Your task to perform on an android device: empty trash in google photos Image 0: 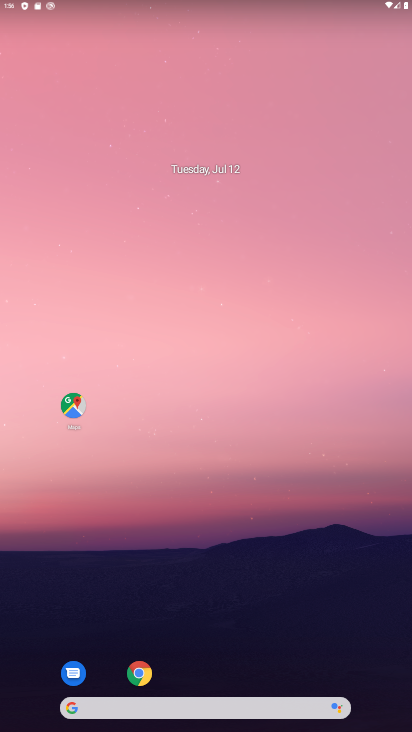
Step 0: press home button
Your task to perform on an android device: empty trash in google photos Image 1: 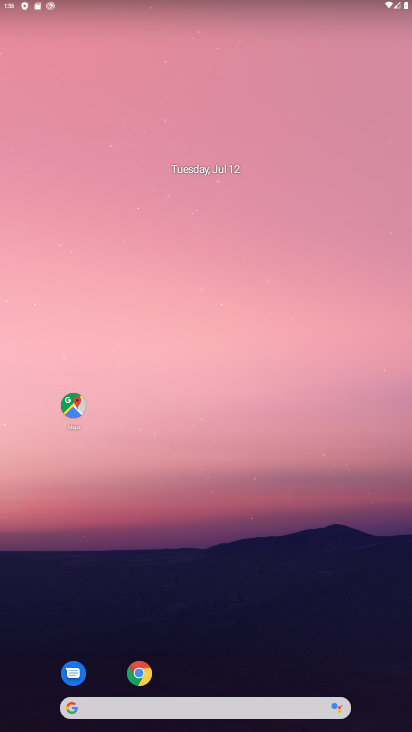
Step 1: drag from (333, 615) to (317, 0)
Your task to perform on an android device: empty trash in google photos Image 2: 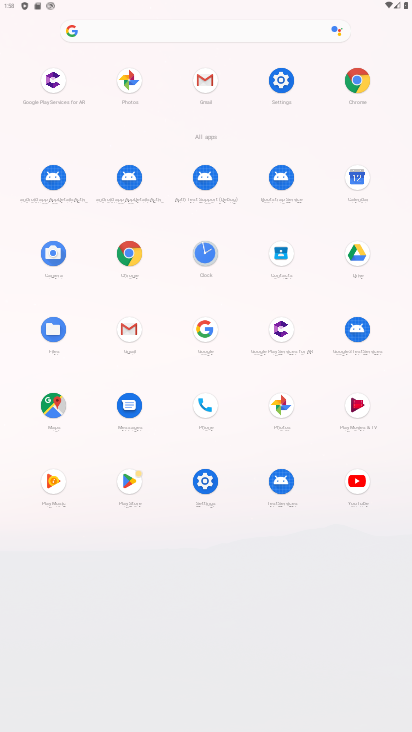
Step 2: click (135, 342)
Your task to perform on an android device: empty trash in google photos Image 3: 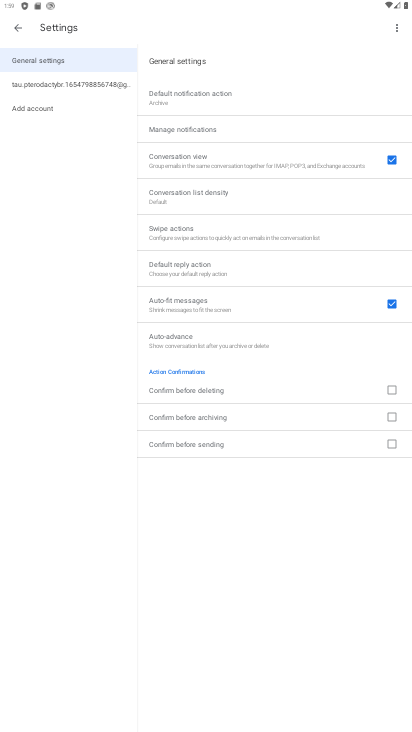
Step 3: click (15, 30)
Your task to perform on an android device: empty trash in google photos Image 4: 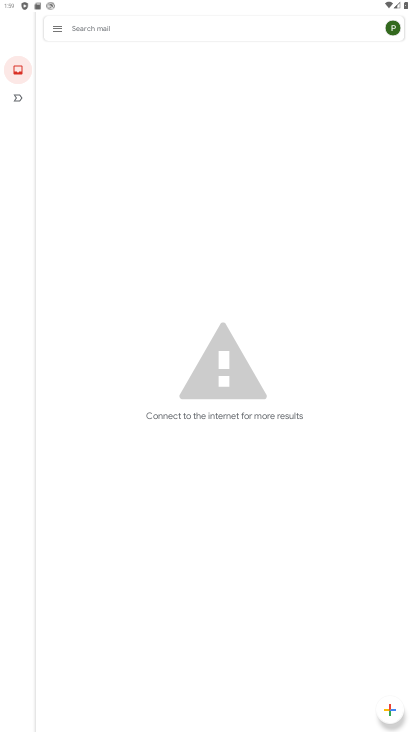
Step 4: click (54, 31)
Your task to perform on an android device: empty trash in google photos Image 5: 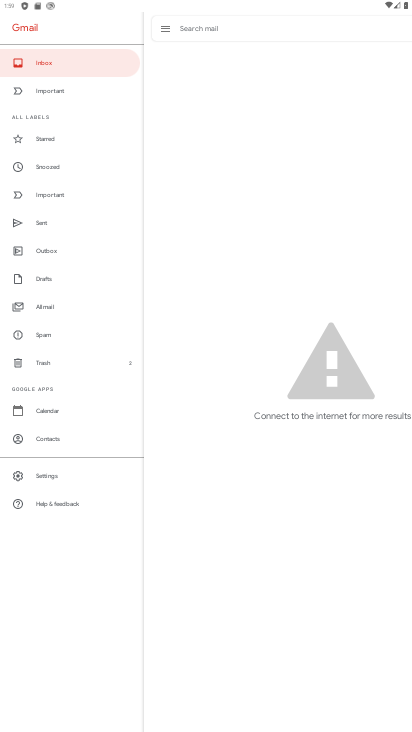
Step 5: click (36, 364)
Your task to perform on an android device: empty trash in google photos Image 6: 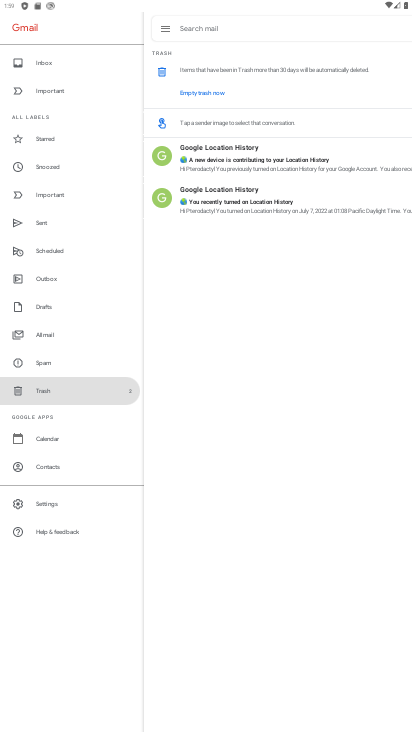
Step 6: task complete